Your task to perform on an android device: open sync settings in chrome Image 0: 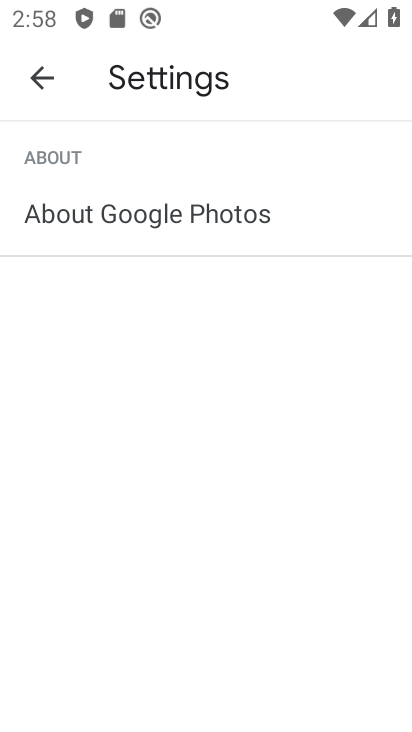
Step 0: press back button
Your task to perform on an android device: open sync settings in chrome Image 1: 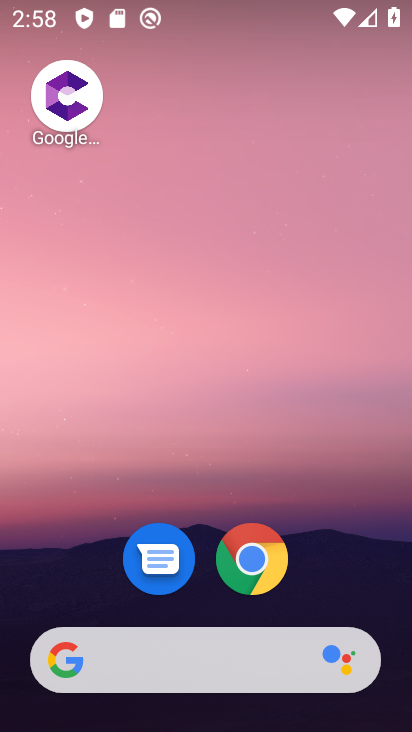
Step 1: click (269, 538)
Your task to perform on an android device: open sync settings in chrome Image 2: 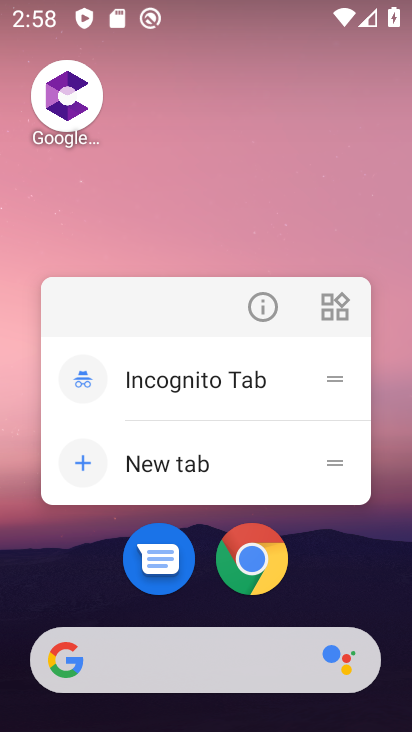
Step 2: click (270, 558)
Your task to perform on an android device: open sync settings in chrome Image 3: 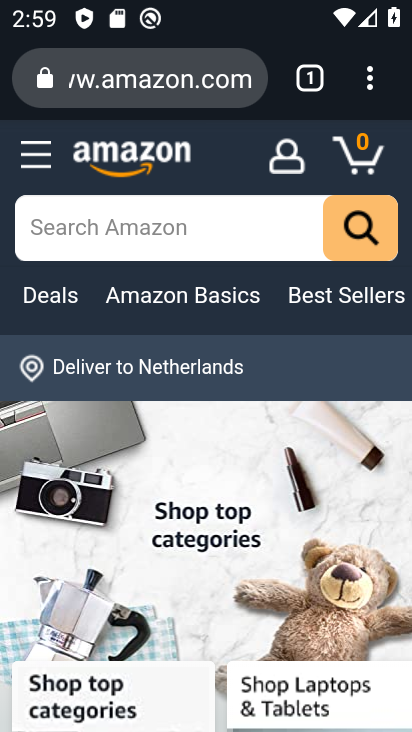
Step 3: drag from (372, 82) to (126, 613)
Your task to perform on an android device: open sync settings in chrome Image 4: 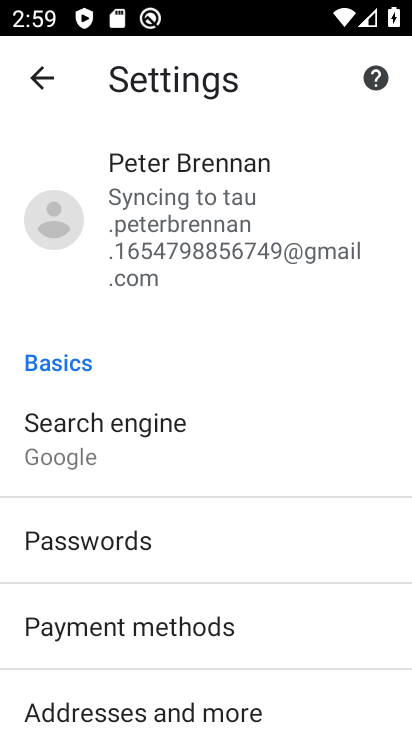
Step 4: click (210, 229)
Your task to perform on an android device: open sync settings in chrome Image 5: 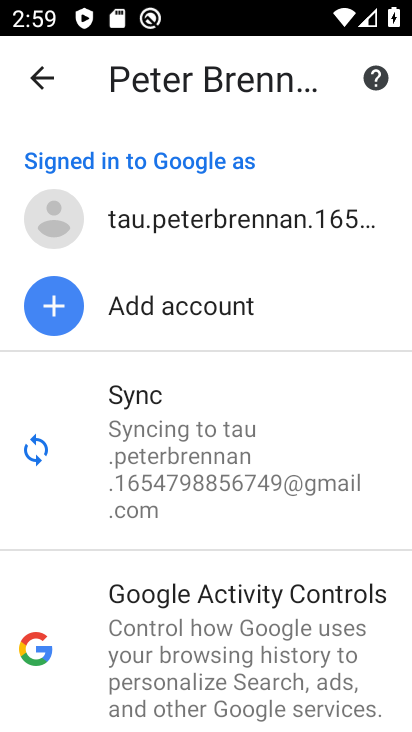
Step 5: task complete